Your task to perform on an android device: Open the calendar and show me this week's events? Image 0: 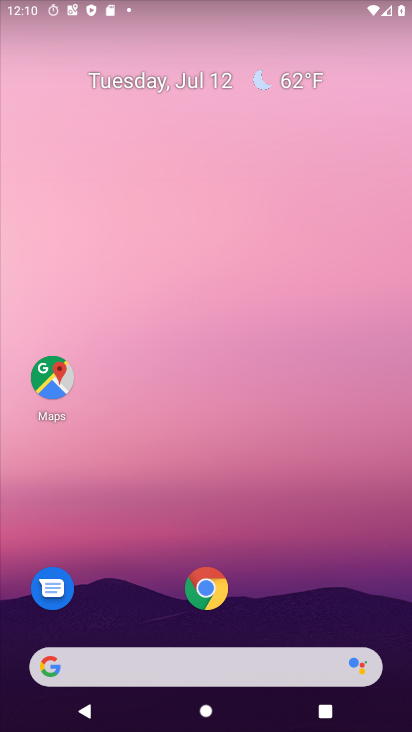
Step 0: drag from (179, 595) to (219, 162)
Your task to perform on an android device: Open the calendar and show me this week's events? Image 1: 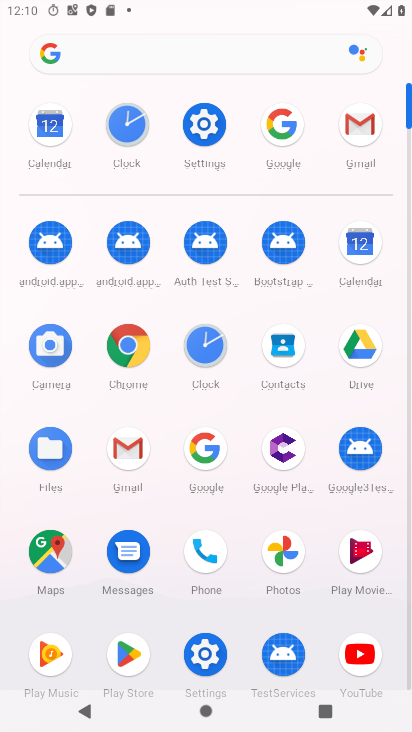
Step 1: click (367, 258)
Your task to perform on an android device: Open the calendar and show me this week's events? Image 2: 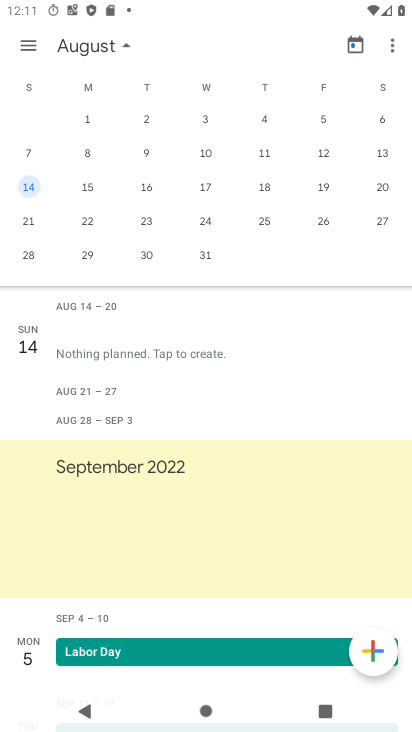
Step 2: click (112, 43)
Your task to perform on an android device: Open the calendar and show me this week's events? Image 3: 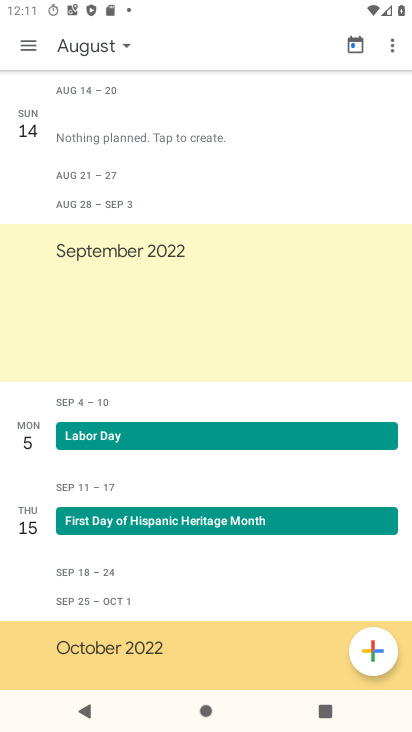
Step 3: click (85, 45)
Your task to perform on an android device: Open the calendar and show me this week's events? Image 4: 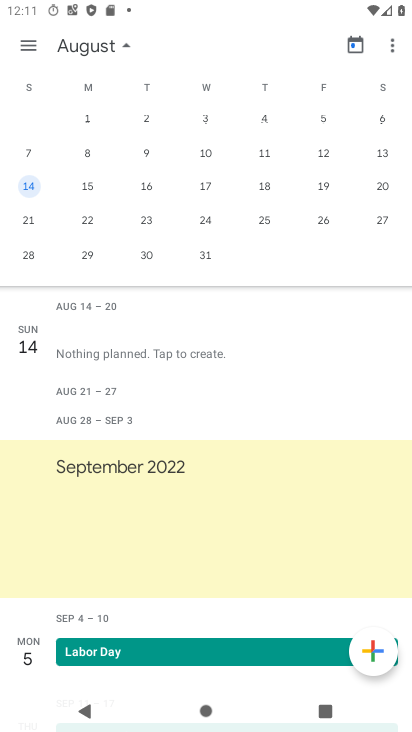
Step 4: drag from (169, 140) to (285, 161)
Your task to perform on an android device: Open the calendar and show me this week's events? Image 5: 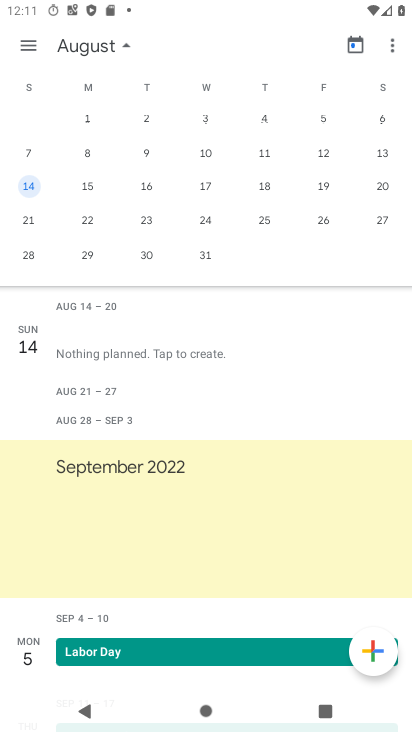
Step 5: click (29, 47)
Your task to perform on an android device: Open the calendar and show me this week's events? Image 6: 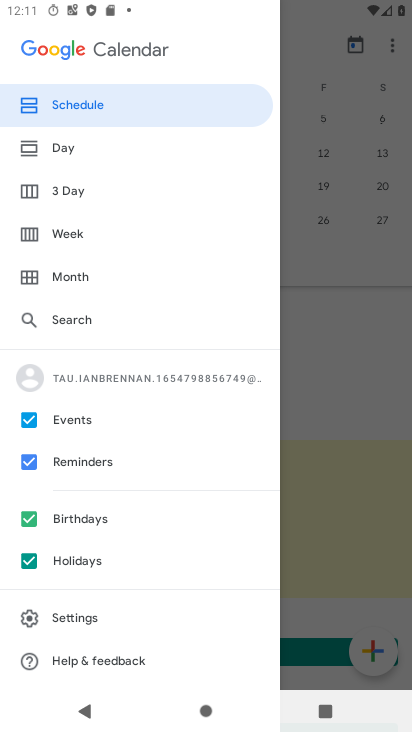
Step 6: click (73, 236)
Your task to perform on an android device: Open the calendar and show me this week's events? Image 7: 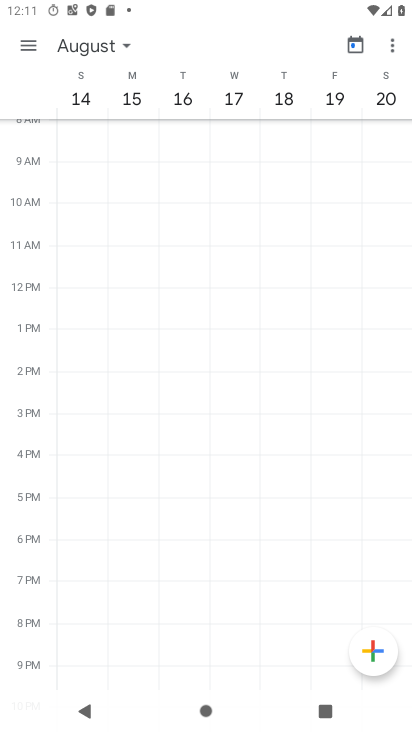
Step 7: task complete